Your task to perform on an android device: Open my contact list Image 0: 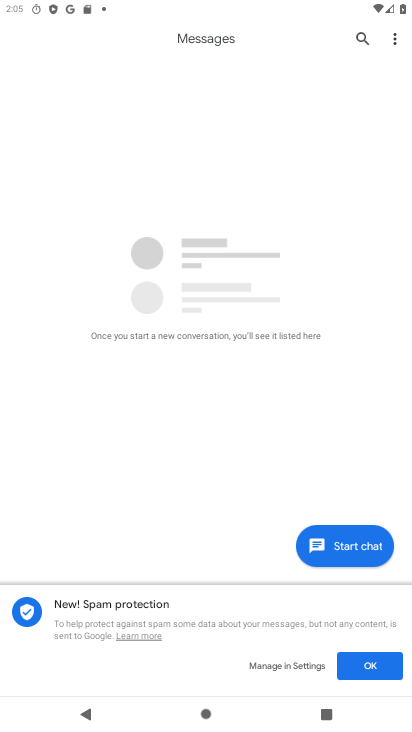
Step 0: press home button
Your task to perform on an android device: Open my contact list Image 1: 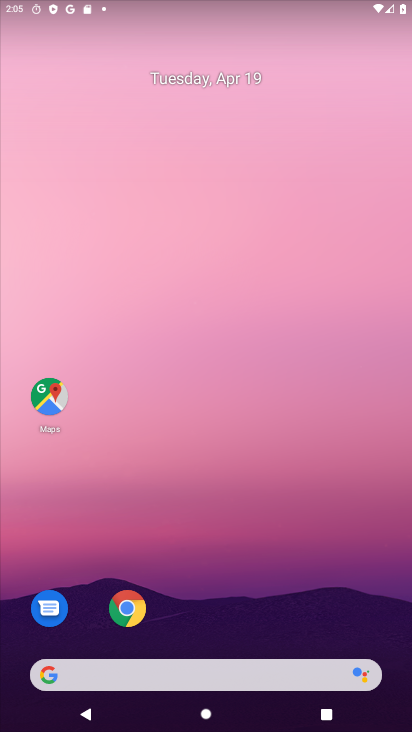
Step 1: drag from (301, 89) to (293, 47)
Your task to perform on an android device: Open my contact list Image 2: 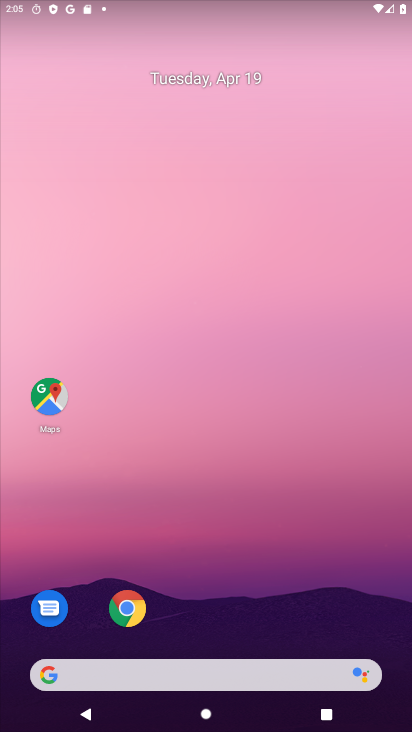
Step 2: drag from (236, 590) to (288, 0)
Your task to perform on an android device: Open my contact list Image 3: 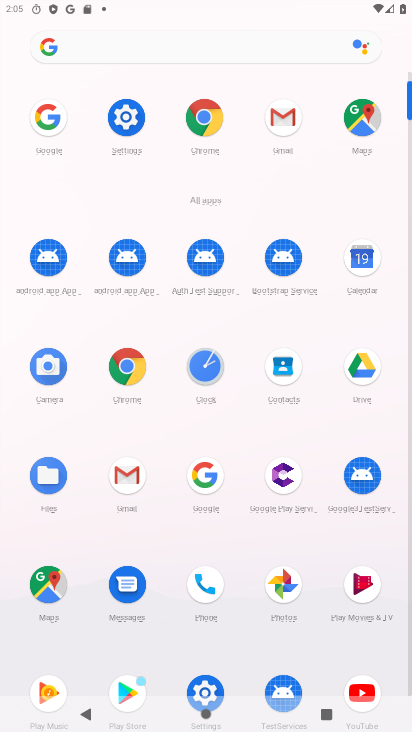
Step 3: click (279, 360)
Your task to perform on an android device: Open my contact list Image 4: 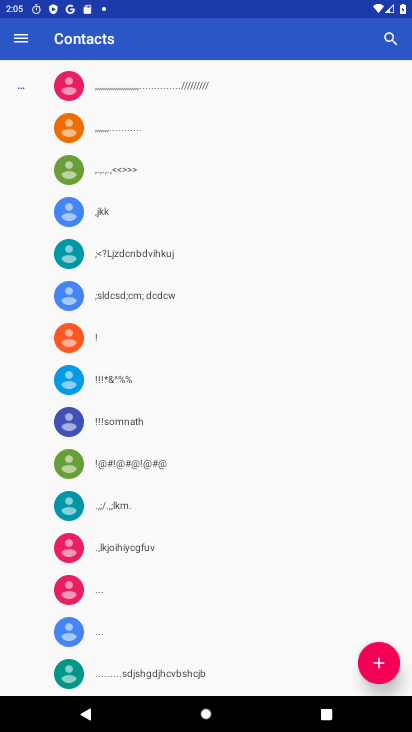
Step 4: task complete